Your task to perform on an android device: check out phone information Image 0: 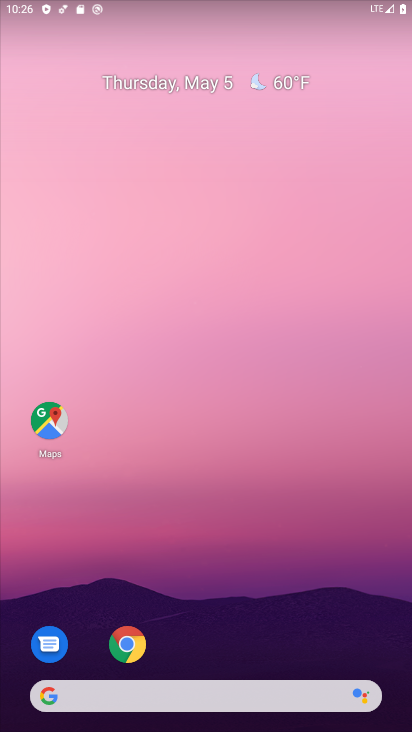
Step 0: drag from (348, 589) to (314, 161)
Your task to perform on an android device: check out phone information Image 1: 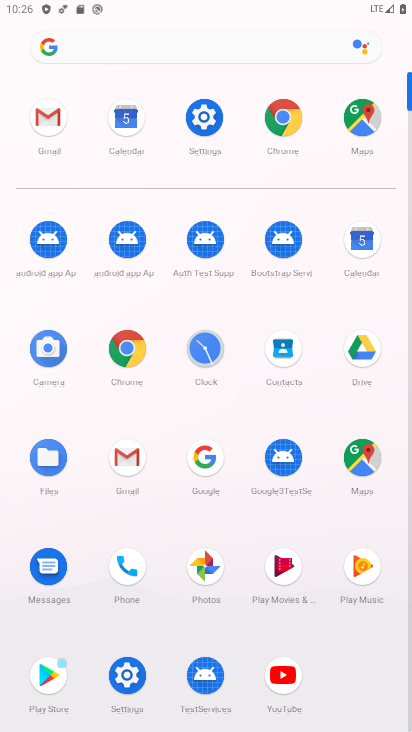
Step 1: click (203, 115)
Your task to perform on an android device: check out phone information Image 2: 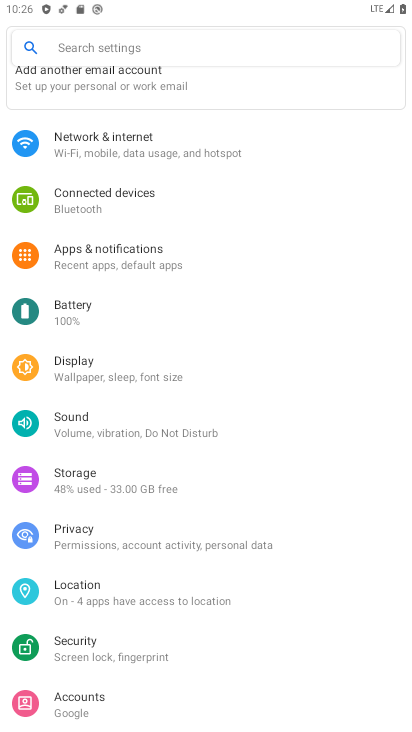
Step 2: task complete